Your task to perform on an android device: turn vacation reply on in the gmail app Image 0: 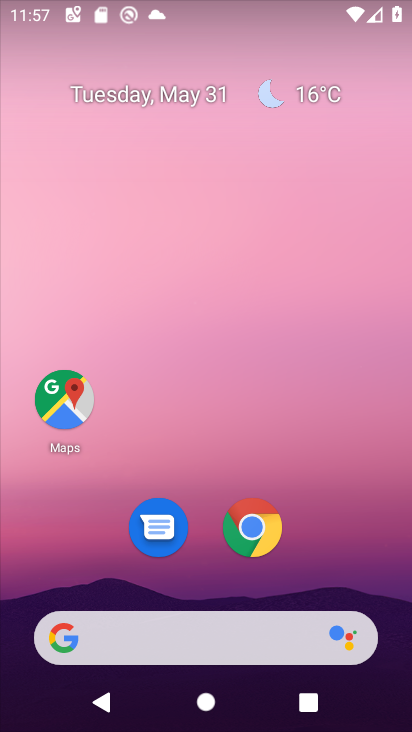
Step 0: drag from (328, 593) to (335, 31)
Your task to perform on an android device: turn vacation reply on in the gmail app Image 1: 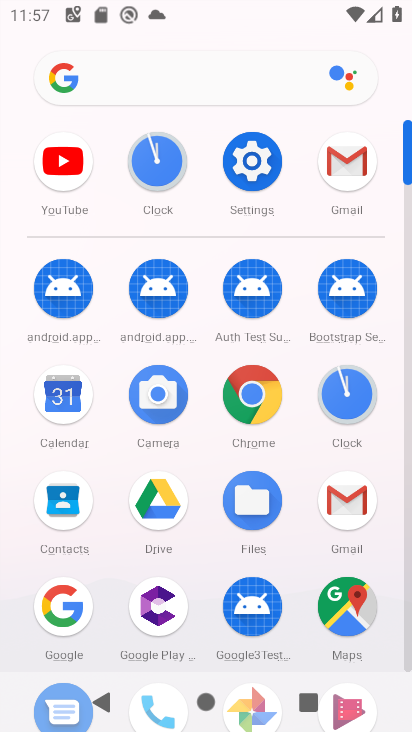
Step 1: click (353, 158)
Your task to perform on an android device: turn vacation reply on in the gmail app Image 2: 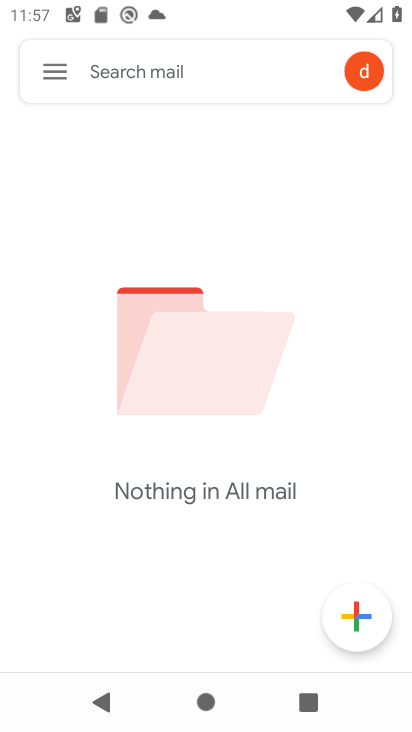
Step 2: click (60, 76)
Your task to perform on an android device: turn vacation reply on in the gmail app Image 3: 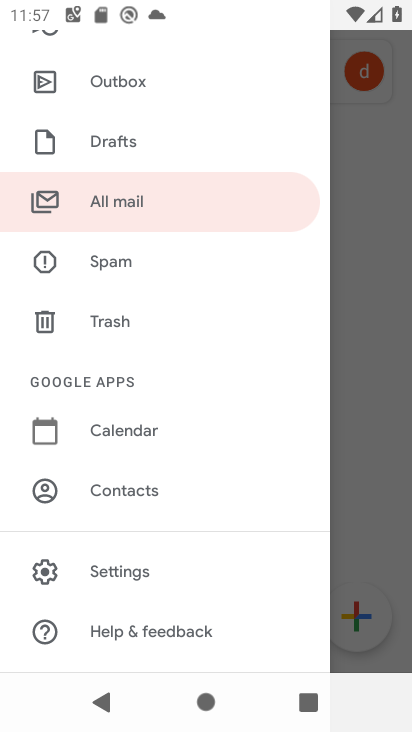
Step 3: click (101, 568)
Your task to perform on an android device: turn vacation reply on in the gmail app Image 4: 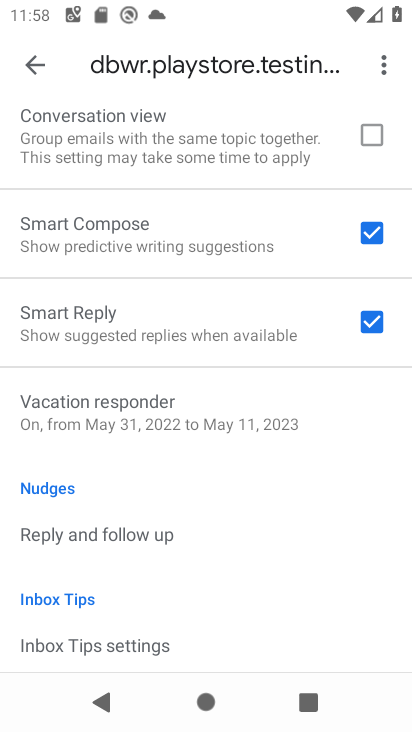
Step 4: drag from (151, 602) to (143, 309)
Your task to perform on an android device: turn vacation reply on in the gmail app Image 5: 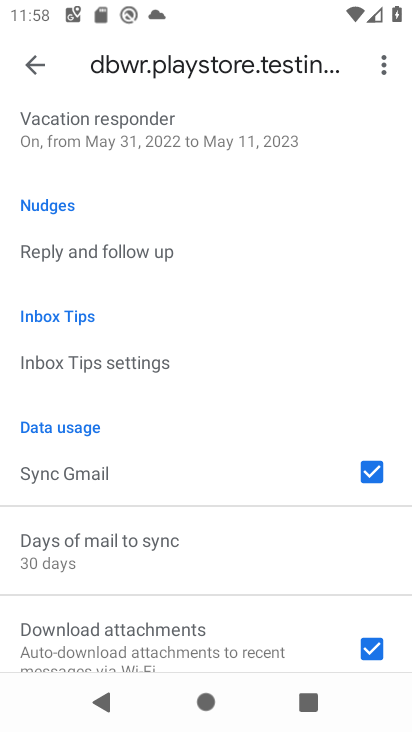
Step 5: click (123, 138)
Your task to perform on an android device: turn vacation reply on in the gmail app Image 6: 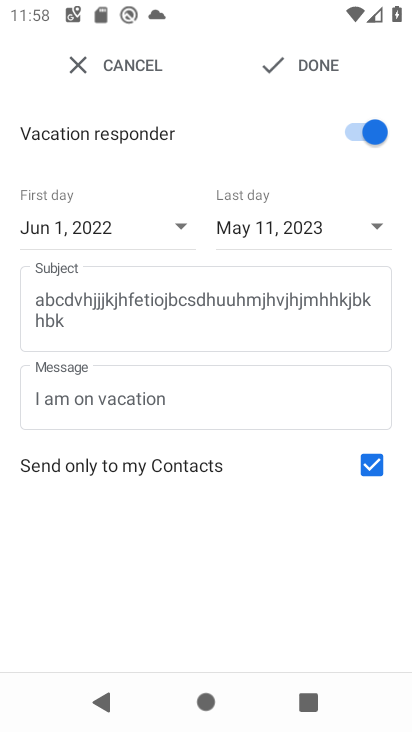
Step 6: click (322, 62)
Your task to perform on an android device: turn vacation reply on in the gmail app Image 7: 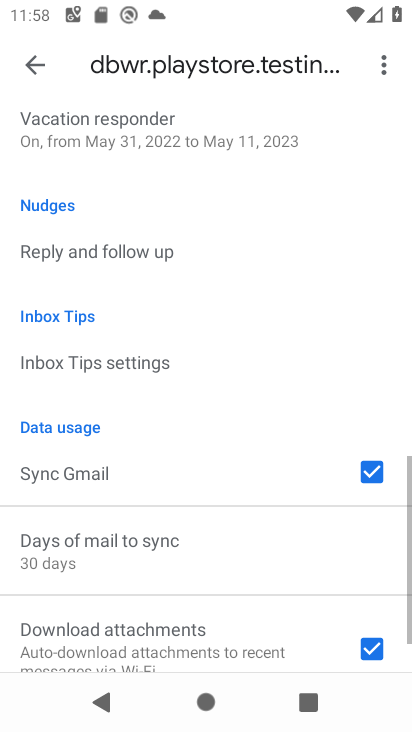
Step 7: task complete